Your task to perform on an android device: Is it going to rain today? Image 0: 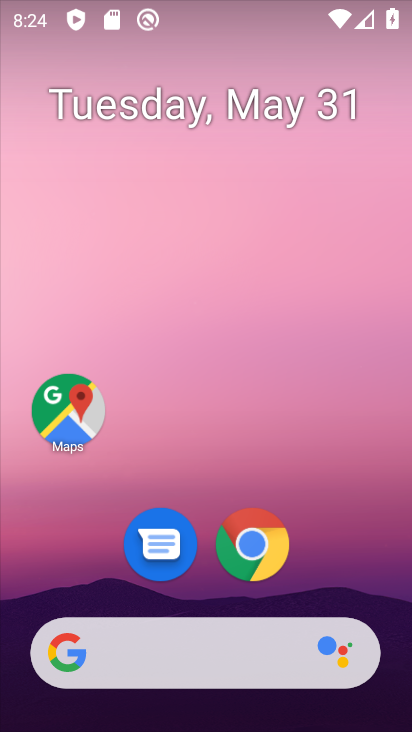
Step 0: press home button
Your task to perform on an android device: Is it going to rain today? Image 1: 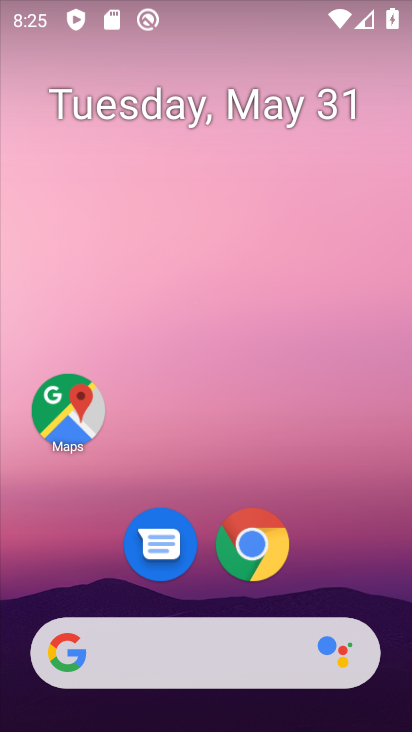
Step 1: drag from (14, 251) to (402, 235)
Your task to perform on an android device: Is it going to rain today? Image 2: 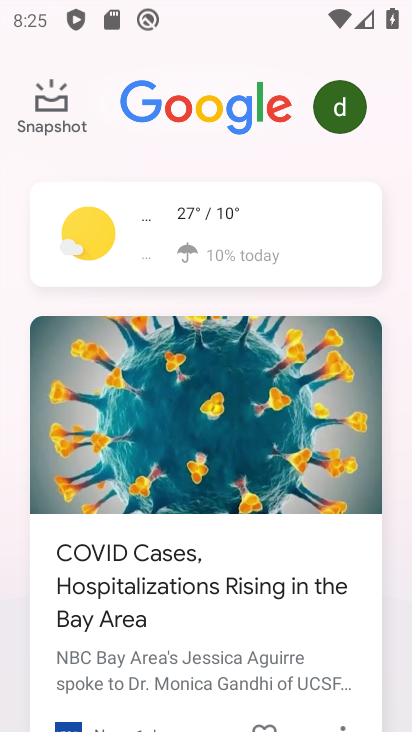
Step 2: click (92, 239)
Your task to perform on an android device: Is it going to rain today? Image 3: 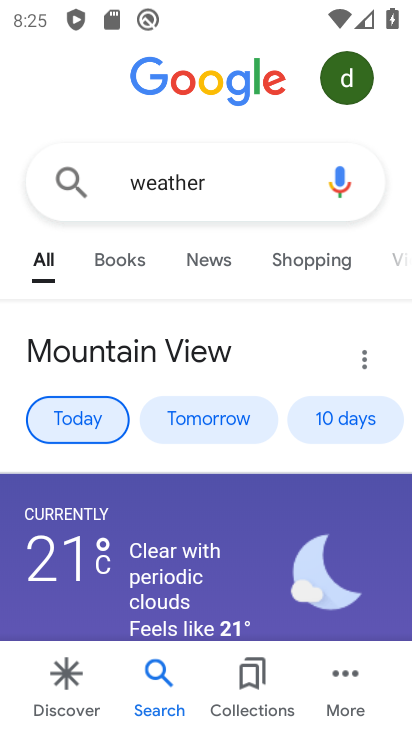
Step 3: task complete